Your task to perform on an android device: change the clock display to analog Image 0: 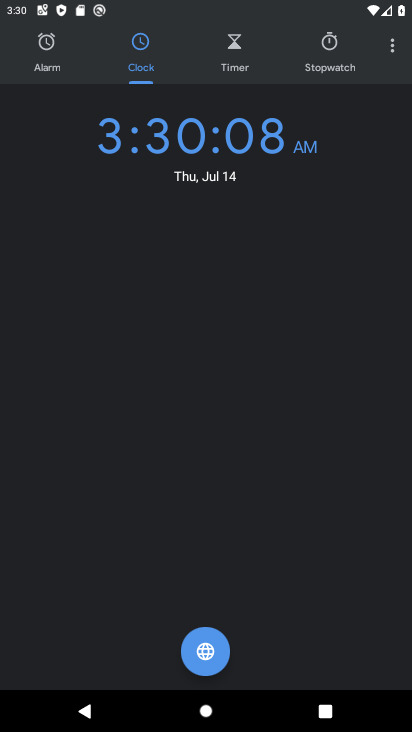
Step 0: press home button
Your task to perform on an android device: change the clock display to analog Image 1: 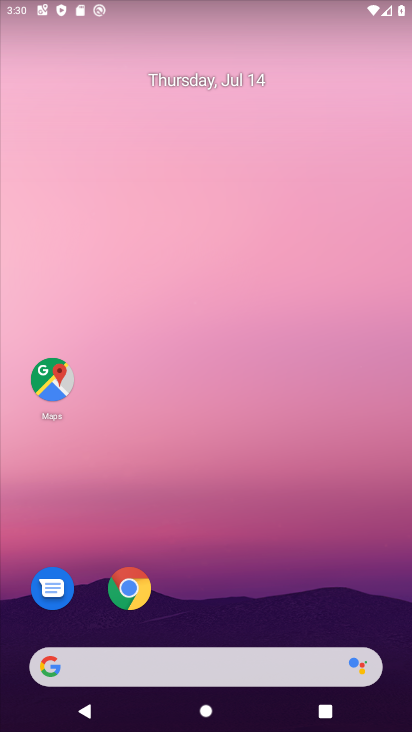
Step 1: drag from (323, 533) to (282, 12)
Your task to perform on an android device: change the clock display to analog Image 2: 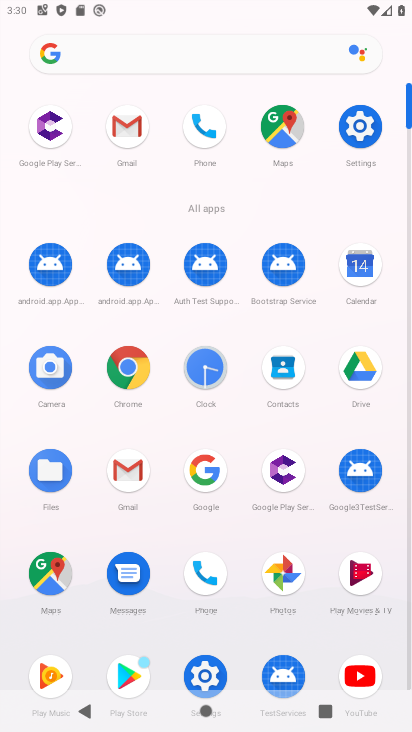
Step 2: click (205, 376)
Your task to perform on an android device: change the clock display to analog Image 3: 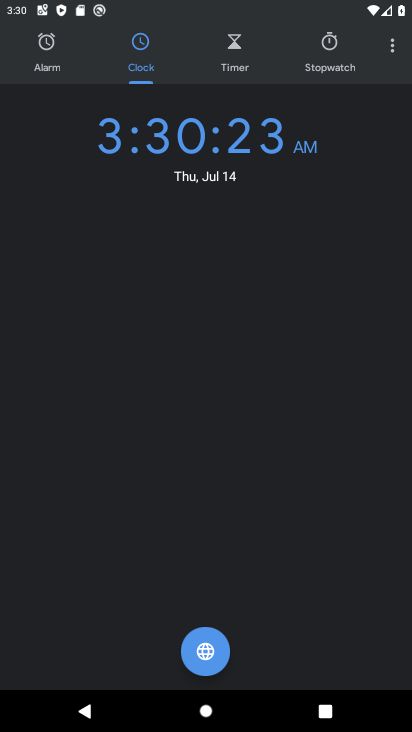
Step 3: click (396, 53)
Your task to perform on an android device: change the clock display to analog Image 4: 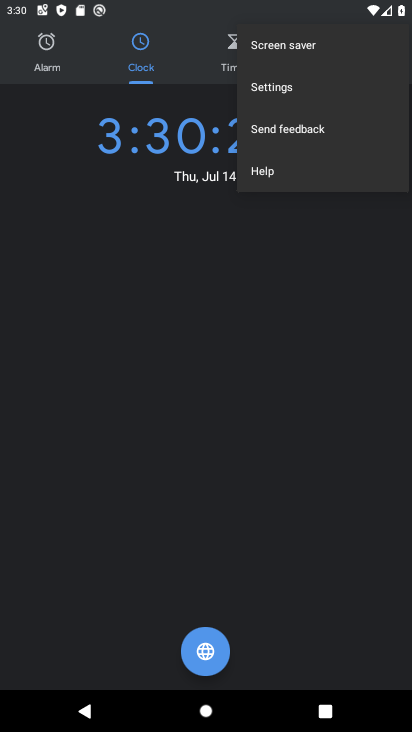
Step 4: click (266, 91)
Your task to perform on an android device: change the clock display to analog Image 5: 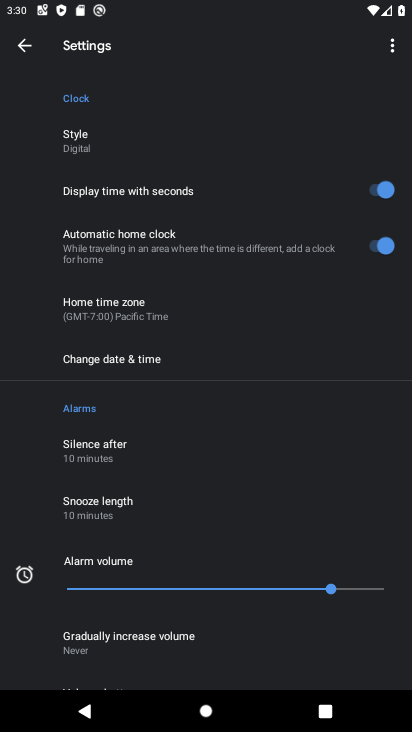
Step 5: click (84, 137)
Your task to perform on an android device: change the clock display to analog Image 6: 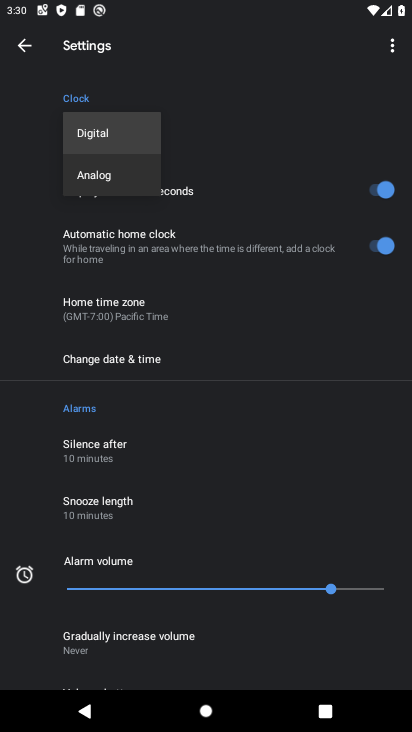
Step 6: click (99, 181)
Your task to perform on an android device: change the clock display to analog Image 7: 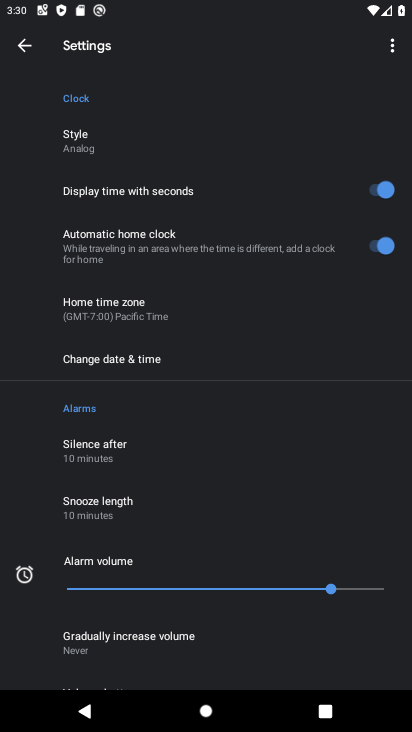
Step 7: task complete